Your task to perform on an android device: Show me popular videos on Youtube Image 0: 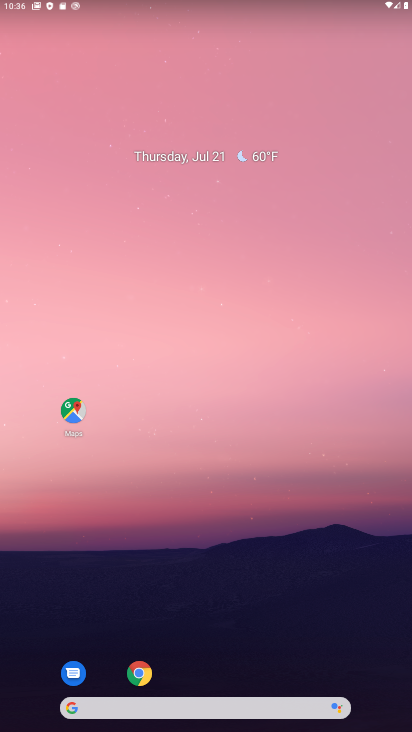
Step 0: press home button
Your task to perform on an android device: Show me popular videos on Youtube Image 1: 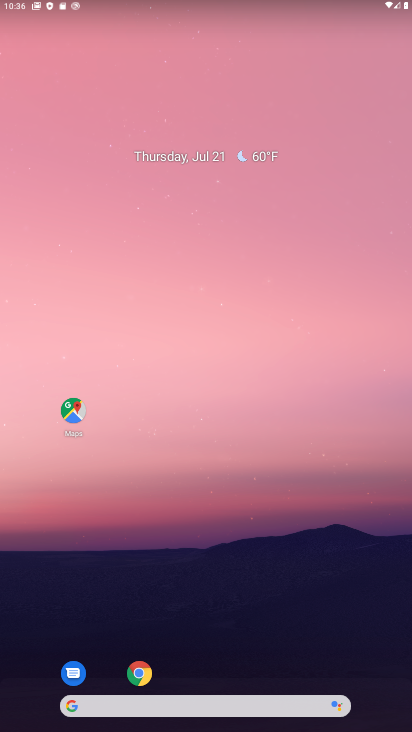
Step 1: drag from (204, 665) to (204, 55)
Your task to perform on an android device: Show me popular videos on Youtube Image 2: 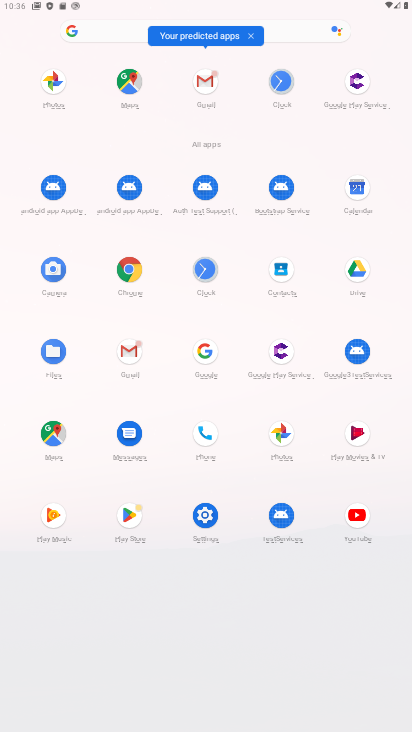
Step 2: click (354, 513)
Your task to perform on an android device: Show me popular videos on Youtube Image 3: 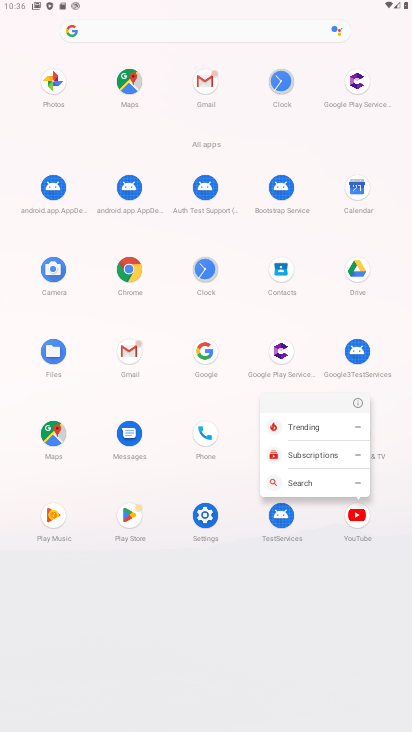
Step 3: click (356, 515)
Your task to perform on an android device: Show me popular videos on Youtube Image 4: 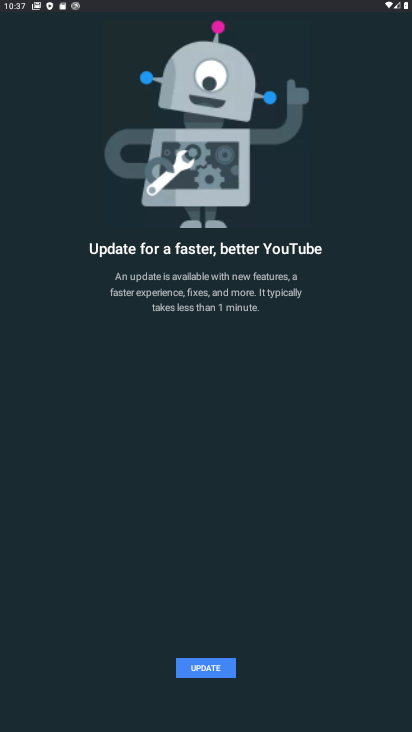
Step 4: click (205, 663)
Your task to perform on an android device: Show me popular videos on Youtube Image 5: 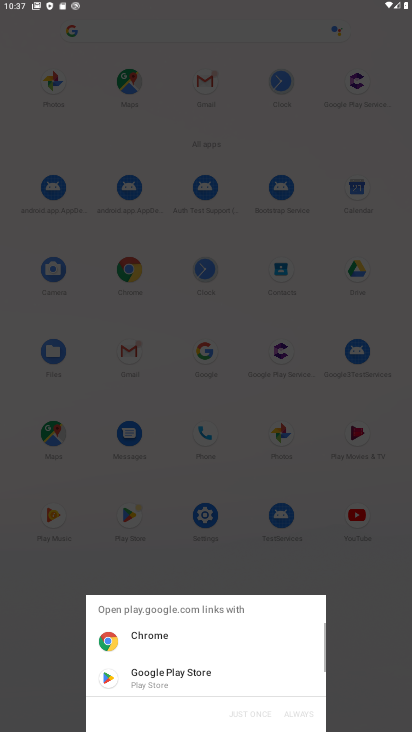
Step 5: click (145, 668)
Your task to perform on an android device: Show me popular videos on Youtube Image 6: 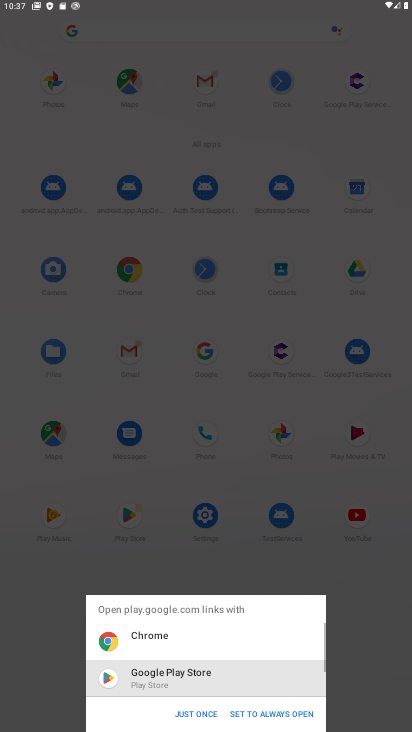
Step 6: click (198, 711)
Your task to perform on an android device: Show me popular videos on Youtube Image 7: 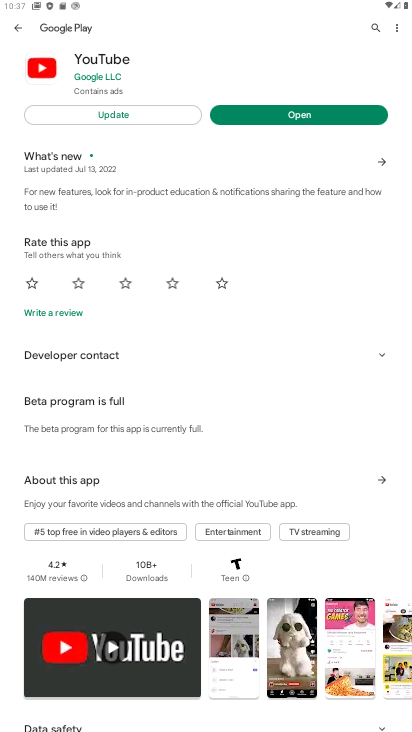
Step 7: click (109, 114)
Your task to perform on an android device: Show me popular videos on Youtube Image 8: 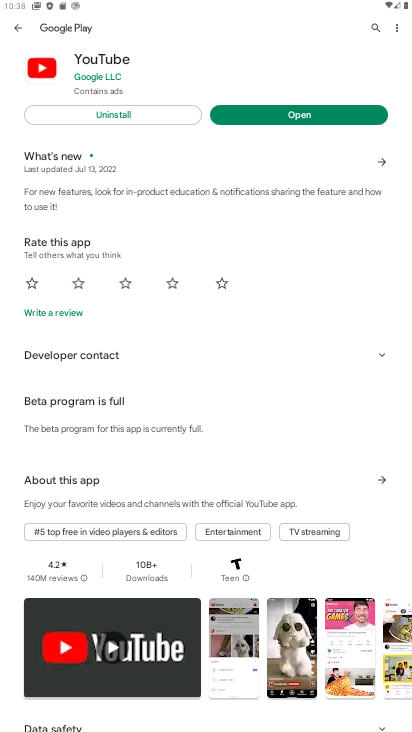
Step 8: click (310, 115)
Your task to perform on an android device: Show me popular videos on Youtube Image 9: 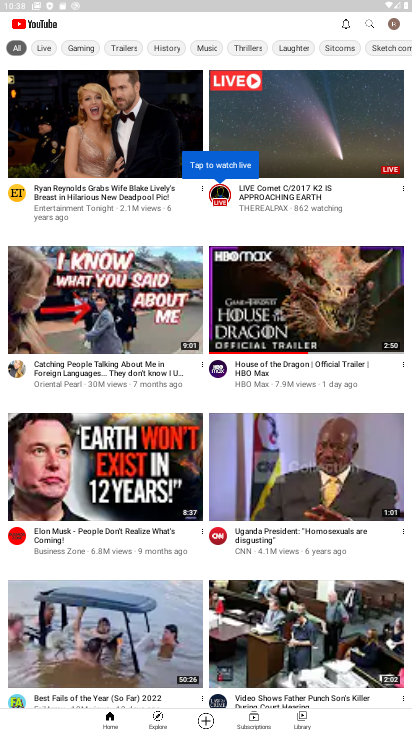
Step 9: drag from (154, 611) to (184, 97)
Your task to perform on an android device: Show me popular videos on Youtube Image 10: 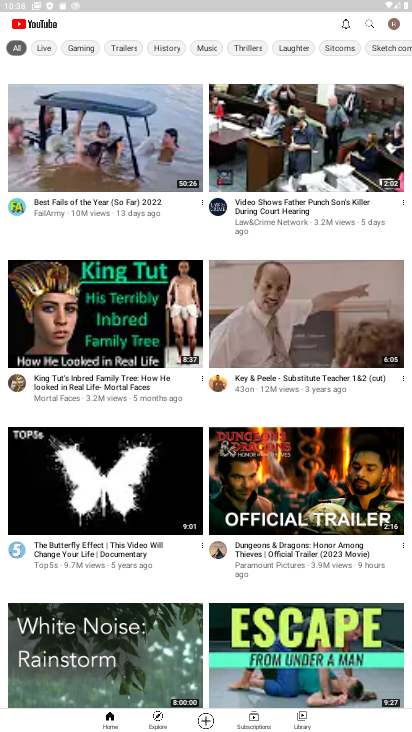
Step 10: drag from (173, 169) to (210, 590)
Your task to perform on an android device: Show me popular videos on Youtube Image 11: 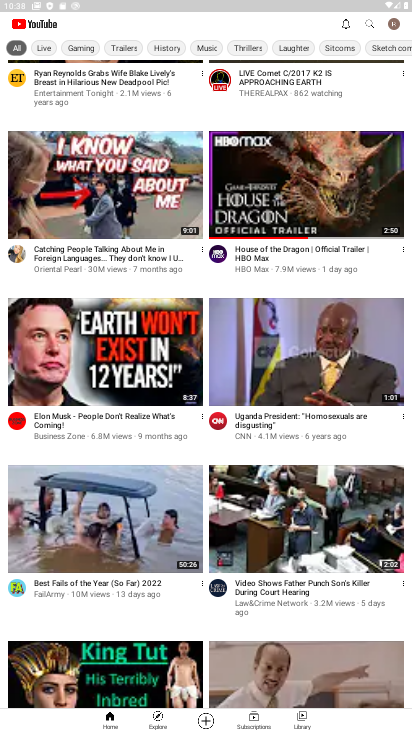
Step 11: click (153, 718)
Your task to perform on an android device: Show me popular videos on Youtube Image 12: 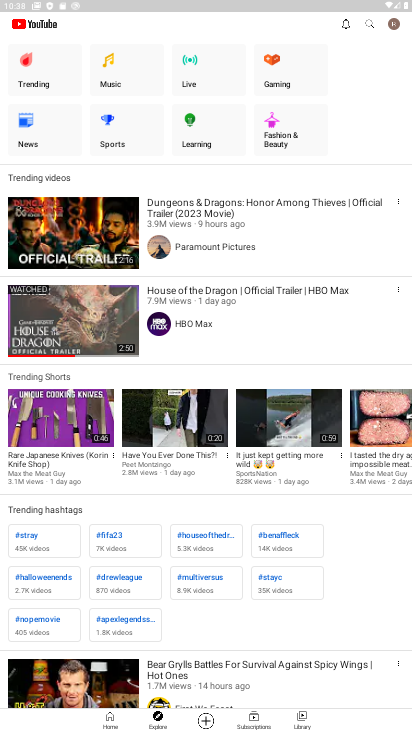
Step 12: drag from (210, 498) to (273, 664)
Your task to perform on an android device: Show me popular videos on Youtube Image 13: 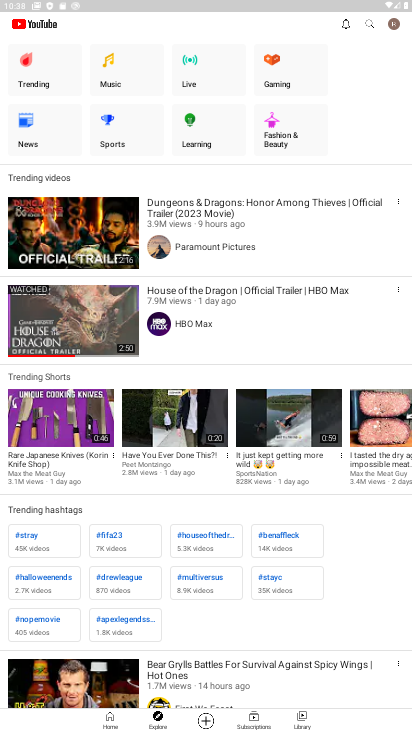
Step 13: click (24, 63)
Your task to perform on an android device: Show me popular videos on Youtube Image 14: 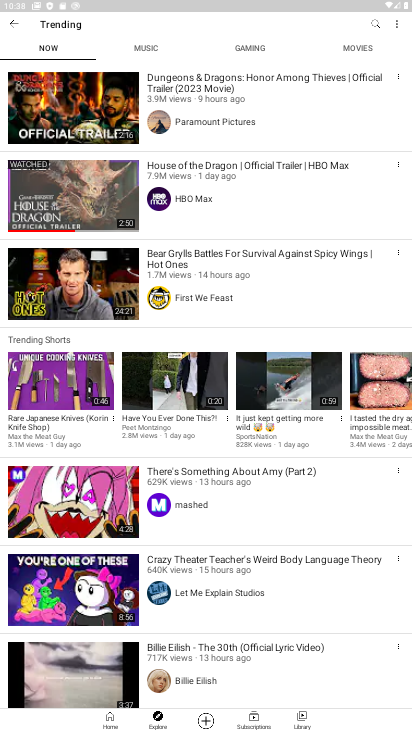
Step 14: task complete